Your task to perform on an android device: change keyboard looks Image 0: 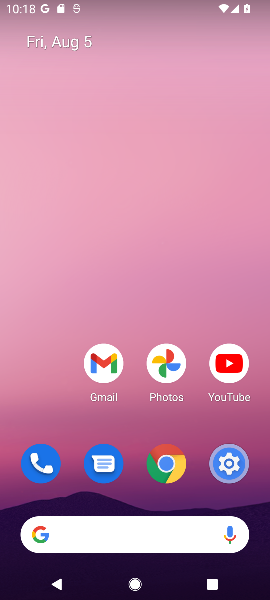
Step 0: drag from (154, 556) to (190, 240)
Your task to perform on an android device: change keyboard looks Image 1: 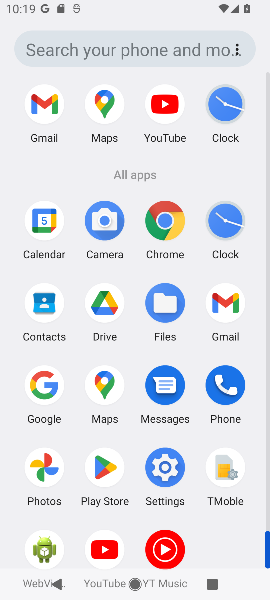
Step 1: click (171, 465)
Your task to perform on an android device: change keyboard looks Image 2: 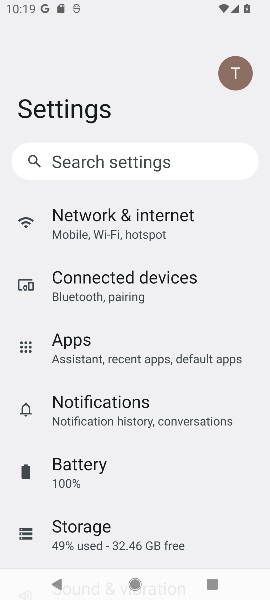
Step 2: drag from (99, 526) to (132, 186)
Your task to perform on an android device: change keyboard looks Image 3: 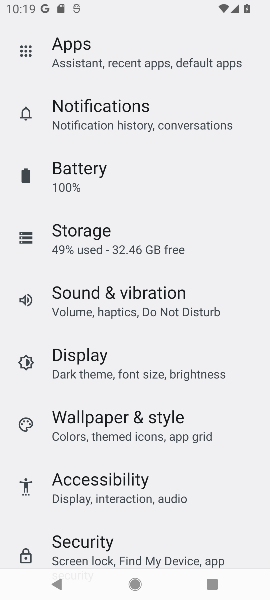
Step 3: drag from (157, 447) to (147, 211)
Your task to perform on an android device: change keyboard looks Image 4: 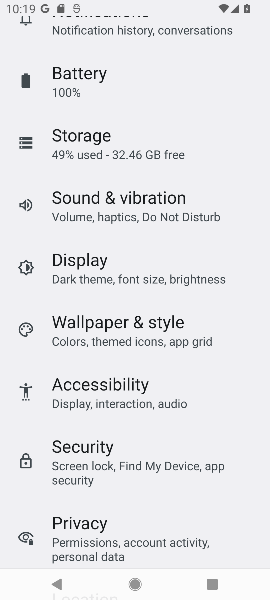
Step 4: drag from (93, 507) to (97, 223)
Your task to perform on an android device: change keyboard looks Image 5: 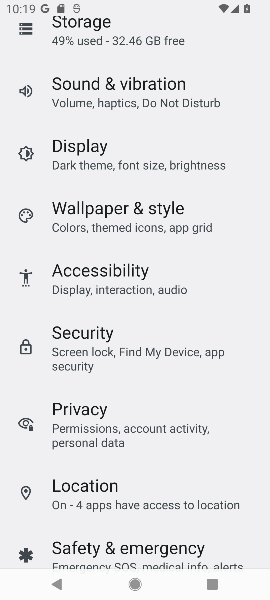
Step 5: drag from (147, 475) to (142, 262)
Your task to perform on an android device: change keyboard looks Image 6: 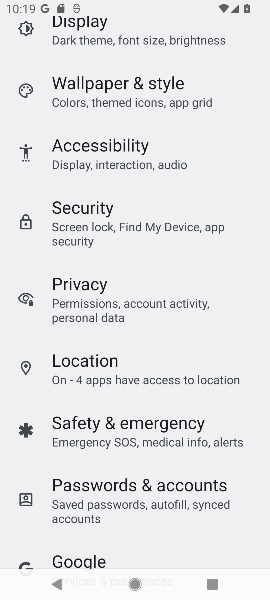
Step 6: drag from (139, 365) to (126, 188)
Your task to perform on an android device: change keyboard looks Image 7: 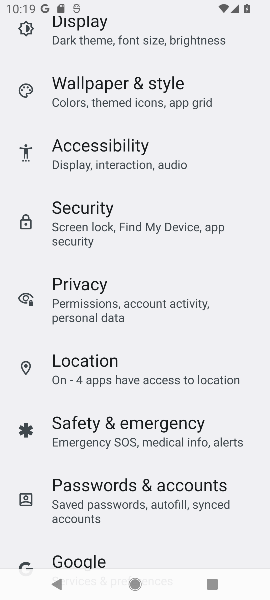
Step 7: drag from (99, 456) to (62, 119)
Your task to perform on an android device: change keyboard looks Image 8: 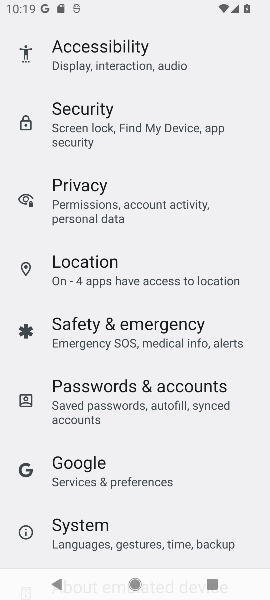
Step 8: drag from (98, 293) to (98, 100)
Your task to perform on an android device: change keyboard looks Image 9: 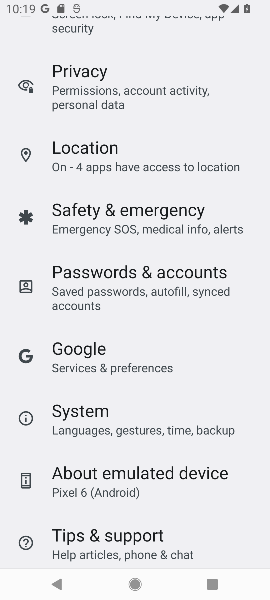
Step 9: click (76, 425)
Your task to perform on an android device: change keyboard looks Image 10: 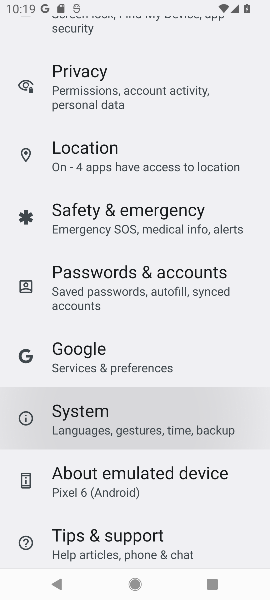
Step 10: click (76, 425)
Your task to perform on an android device: change keyboard looks Image 11: 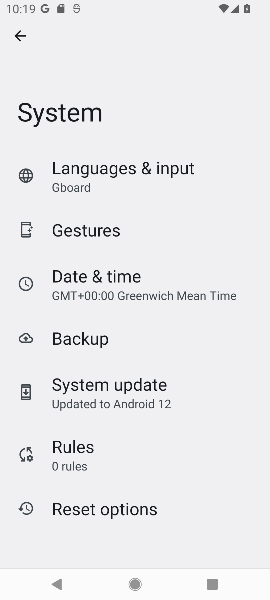
Step 11: drag from (98, 437) to (36, 156)
Your task to perform on an android device: change keyboard looks Image 12: 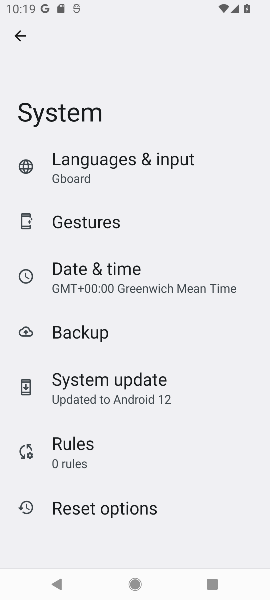
Step 12: drag from (90, 353) to (109, 117)
Your task to perform on an android device: change keyboard looks Image 13: 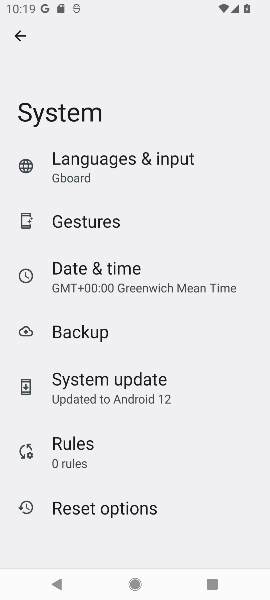
Step 13: drag from (101, 366) to (91, 227)
Your task to perform on an android device: change keyboard looks Image 14: 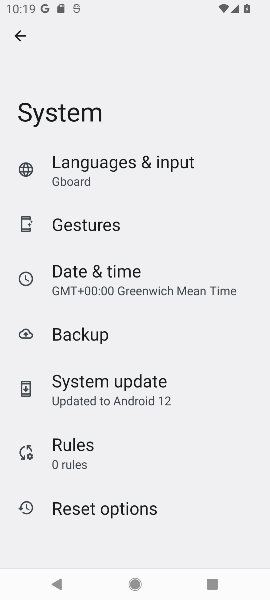
Step 14: drag from (110, 370) to (87, 101)
Your task to perform on an android device: change keyboard looks Image 15: 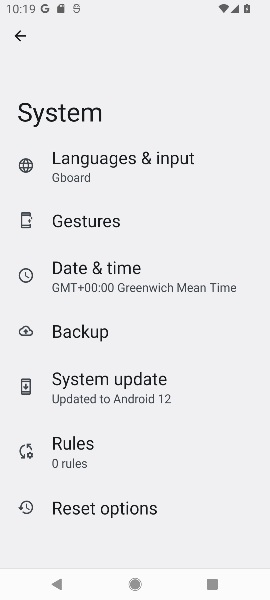
Step 15: drag from (103, 329) to (103, 131)
Your task to perform on an android device: change keyboard looks Image 16: 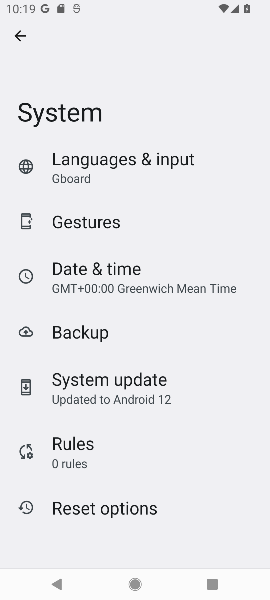
Step 16: drag from (146, 393) to (130, 201)
Your task to perform on an android device: change keyboard looks Image 17: 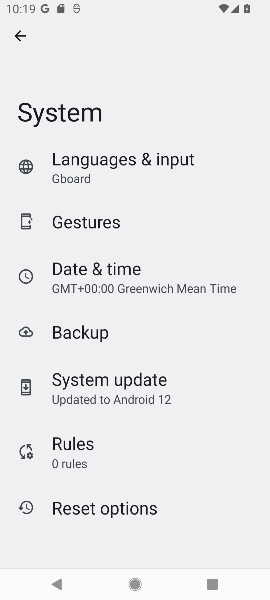
Step 17: drag from (147, 356) to (141, 176)
Your task to perform on an android device: change keyboard looks Image 18: 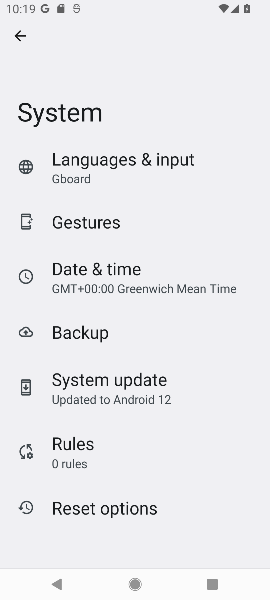
Step 18: drag from (123, 383) to (81, 76)
Your task to perform on an android device: change keyboard looks Image 19: 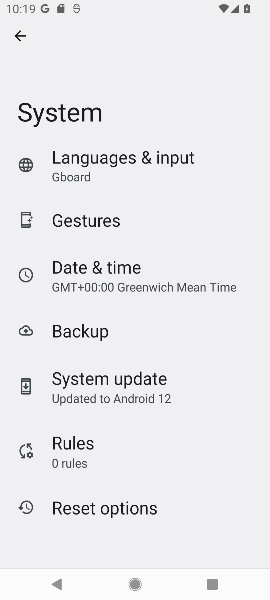
Step 19: drag from (88, 396) to (87, 189)
Your task to perform on an android device: change keyboard looks Image 20: 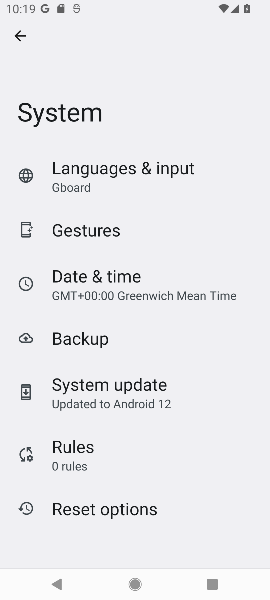
Step 20: click (69, 179)
Your task to perform on an android device: change keyboard looks Image 21: 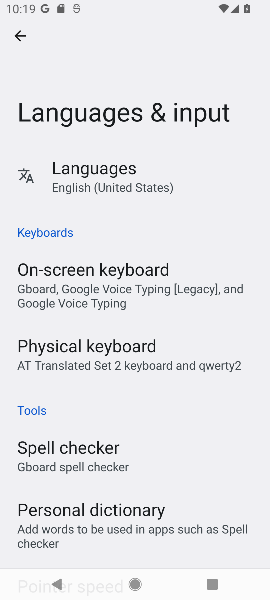
Step 21: click (113, 290)
Your task to perform on an android device: change keyboard looks Image 22: 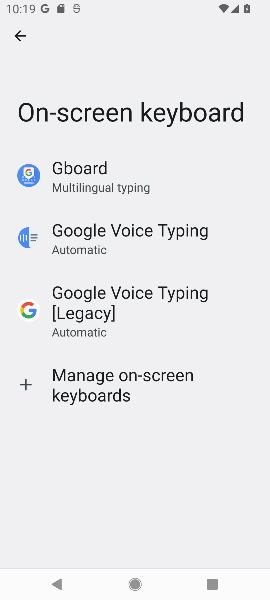
Step 22: click (70, 192)
Your task to perform on an android device: change keyboard looks Image 23: 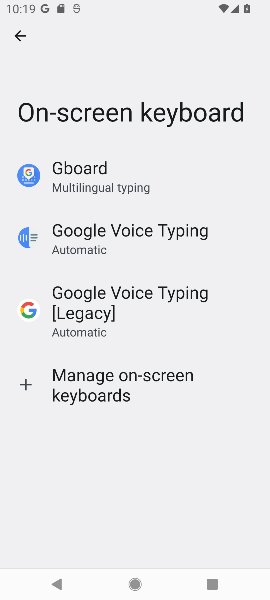
Step 23: click (70, 192)
Your task to perform on an android device: change keyboard looks Image 24: 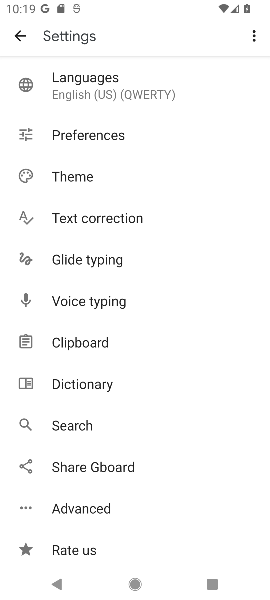
Step 24: click (69, 175)
Your task to perform on an android device: change keyboard looks Image 25: 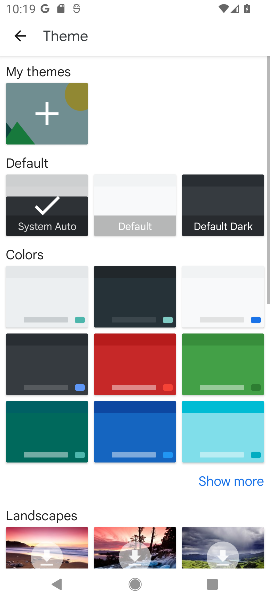
Step 25: click (135, 286)
Your task to perform on an android device: change keyboard looks Image 26: 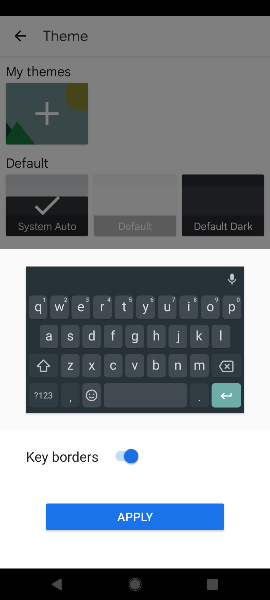
Step 26: click (133, 514)
Your task to perform on an android device: change keyboard looks Image 27: 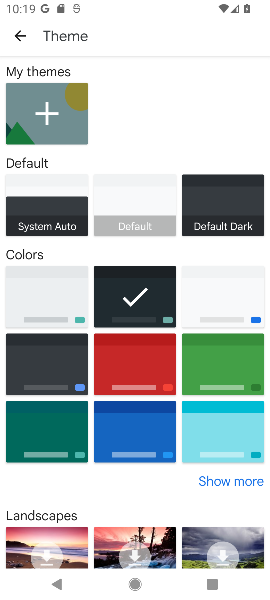
Step 27: task complete